Your task to perform on an android device: turn on bluetooth scan Image 0: 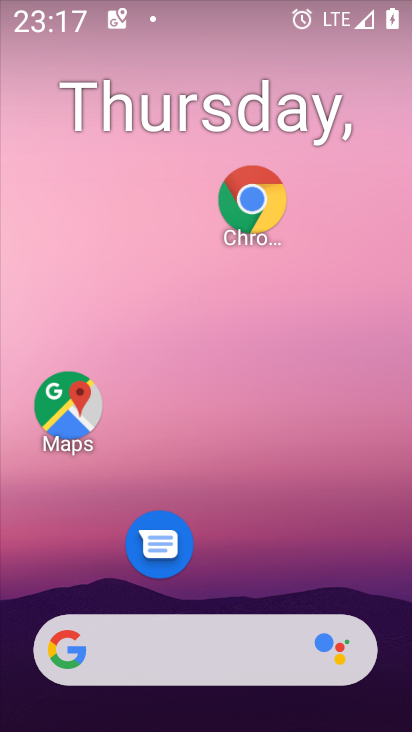
Step 0: drag from (271, 570) to (287, 414)
Your task to perform on an android device: turn on bluetooth scan Image 1: 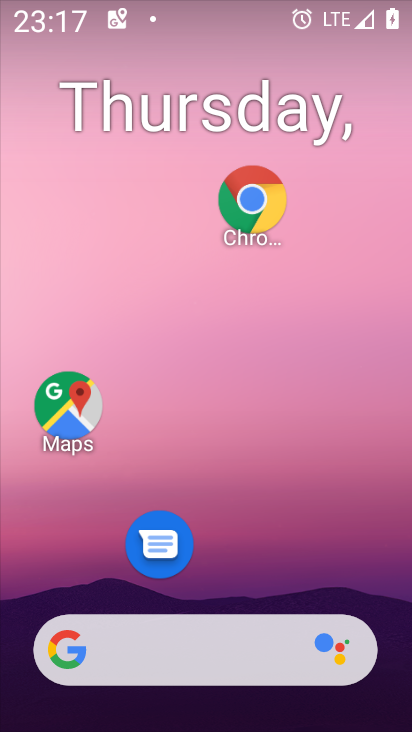
Step 1: drag from (220, 590) to (266, 85)
Your task to perform on an android device: turn on bluetooth scan Image 2: 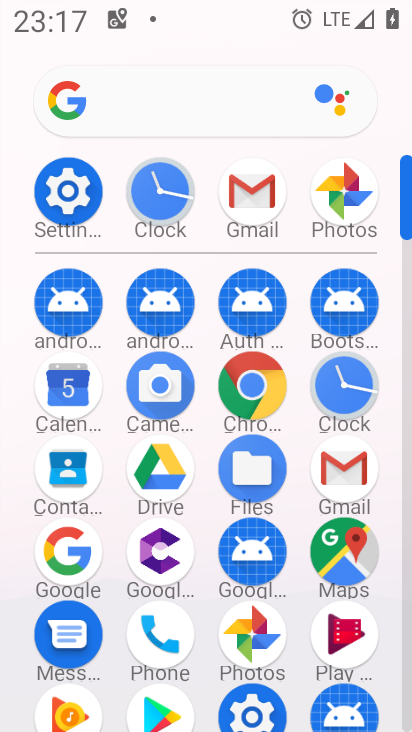
Step 2: click (62, 182)
Your task to perform on an android device: turn on bluetooth scan Image 3: 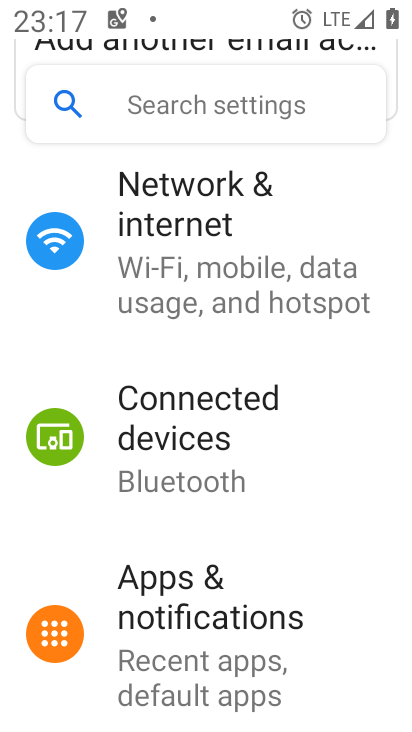
Step 3: drag from (62, 182) to (240, 11)
Your task to perform on an android device: turn on bluetooth scan Image 4: 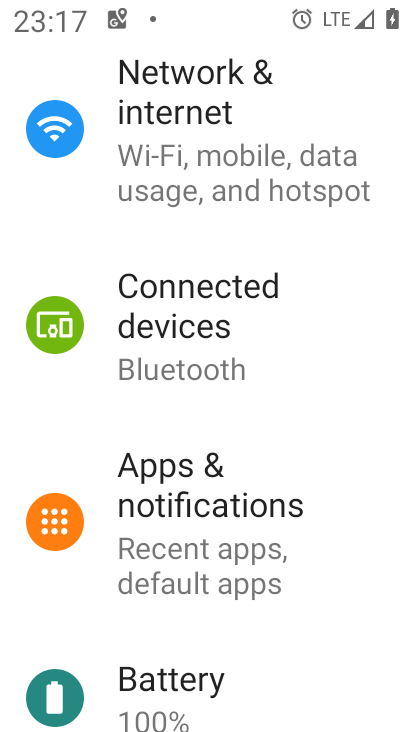
Step 4: drag from (191, 638) to (228, 340)
Your task to perform on an android device: turn on bluetooth scan Image 5: 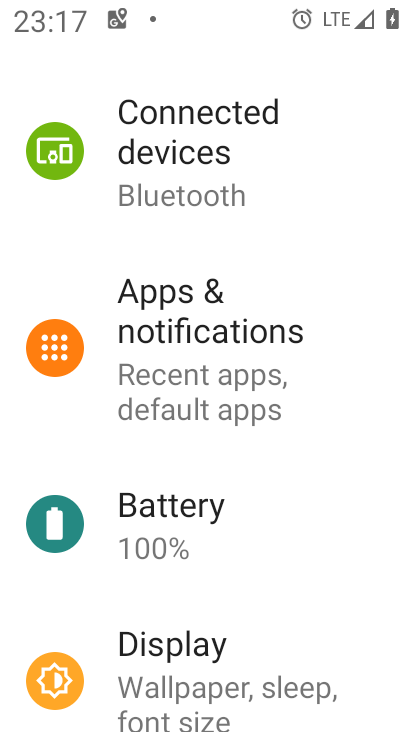
Step 5: drag from (217, 590) to (262, 219)
Your task to perform on an android device: turn on bluetooth scan Image 6: 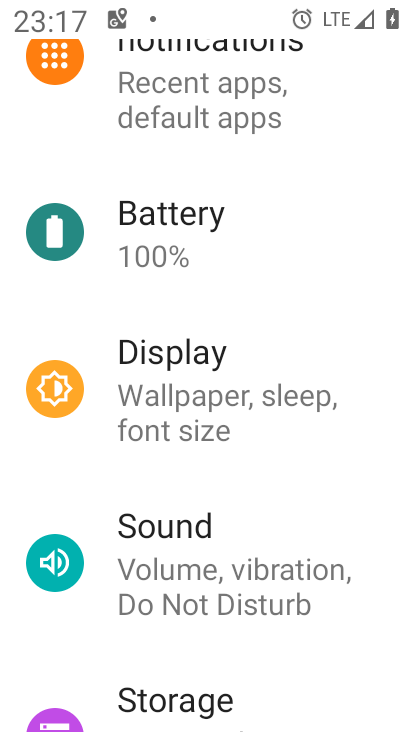
Step 6: drag from (178, 508) to (205, 300)
Your task to perform on an android device: turn on bluetooth scan Image 7: 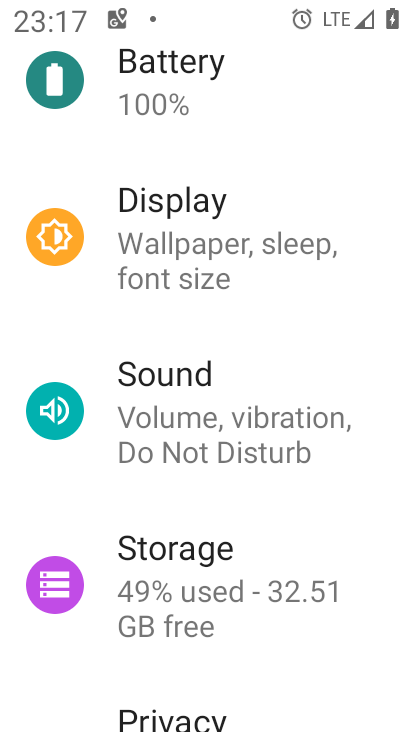
Step 7: drag from (146, 616) to (238, 289)
Your task to perform on an android device: turn on bluetooth scan Image 8: 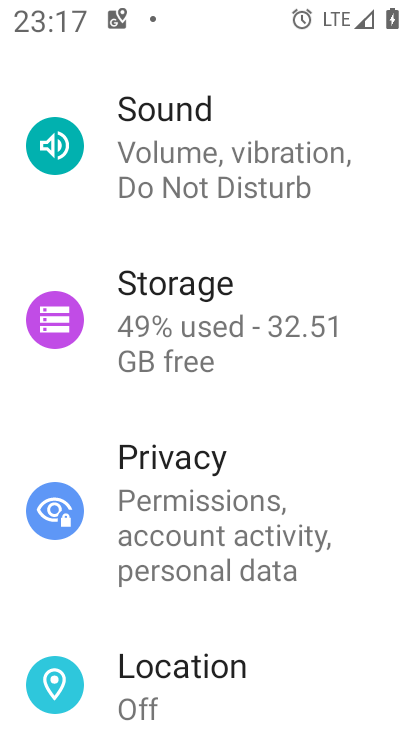
Step 8: click (140, 700)
Your task to perform on an android device: turn on bluetooth scan Image 9: 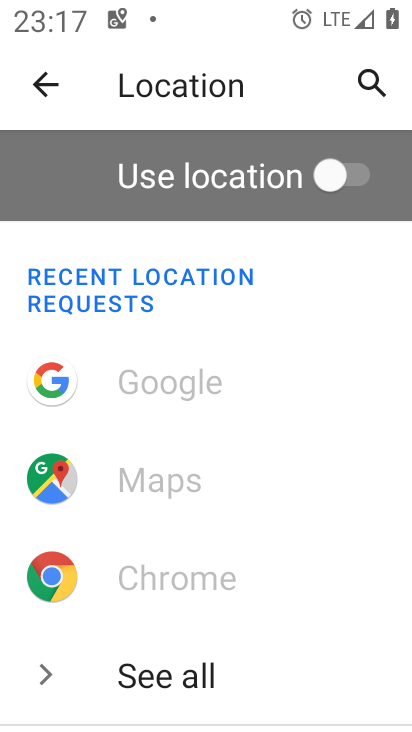
Step 9: click (356, 178)
Your task to perform on an android device: turn on bluetooth scan Image 10: 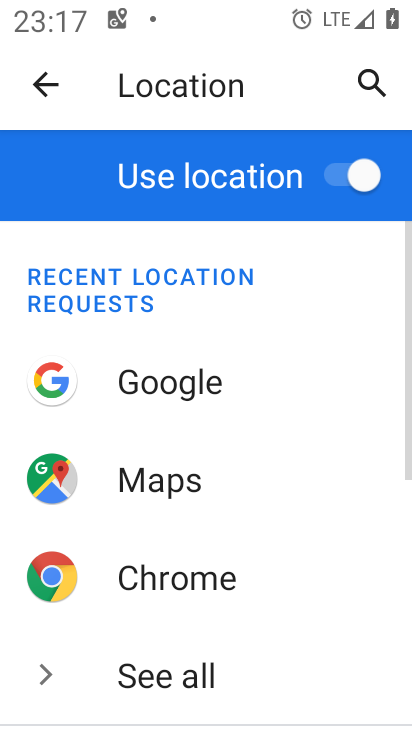
Step 10: task complete